Your task to perform on an android device: set an alarm Image 0: 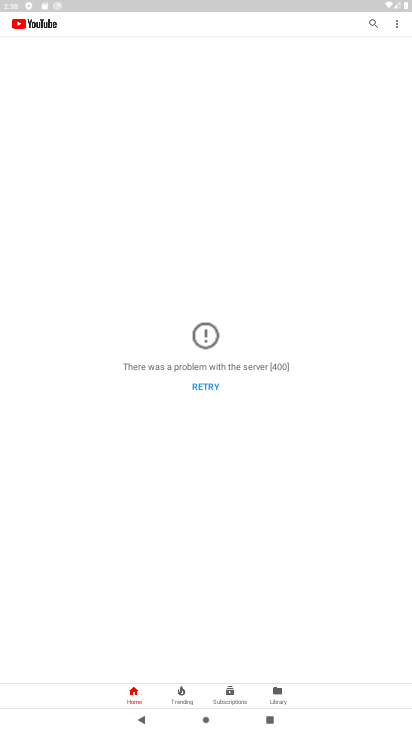
Step 0: press home button
Your task to perform on an android device: set an alarm Image 1: 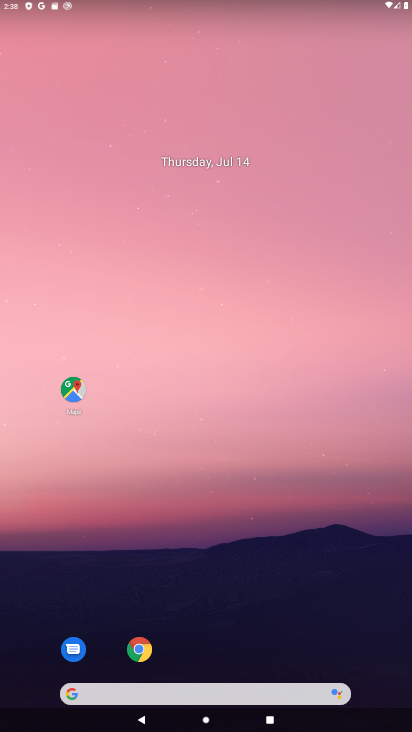
Step 1: drag from (276, 613) to (284, 140)
Your task to perform on an android device: set an alarm Image 2: 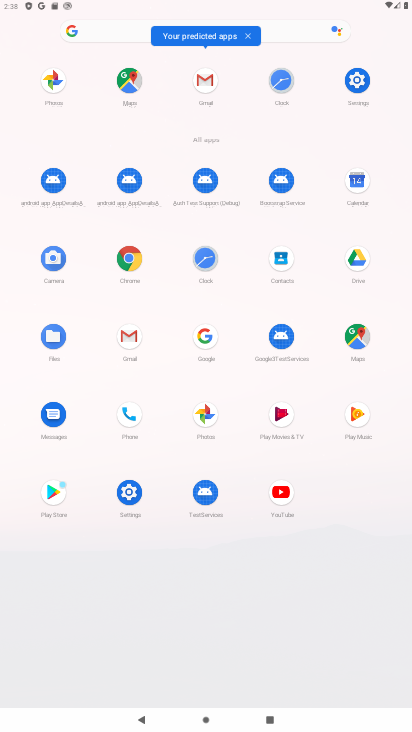
Step 2: click (206, 254)
Your task to perform on an android device: set an alarm Image 3: 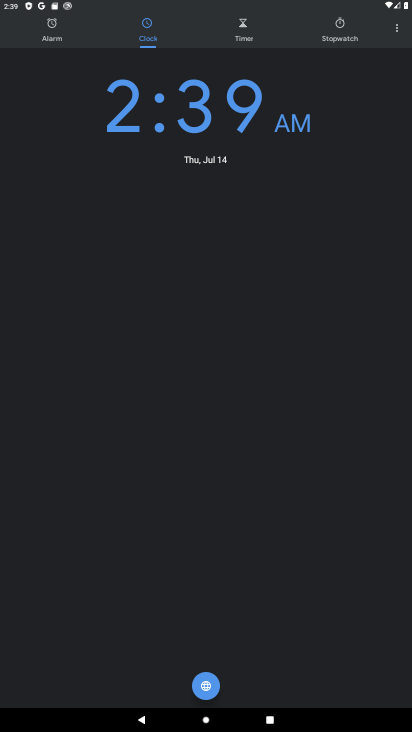
Step 3: click (392, 33)
Your task to perform on an android device: set an alarm Image 4: 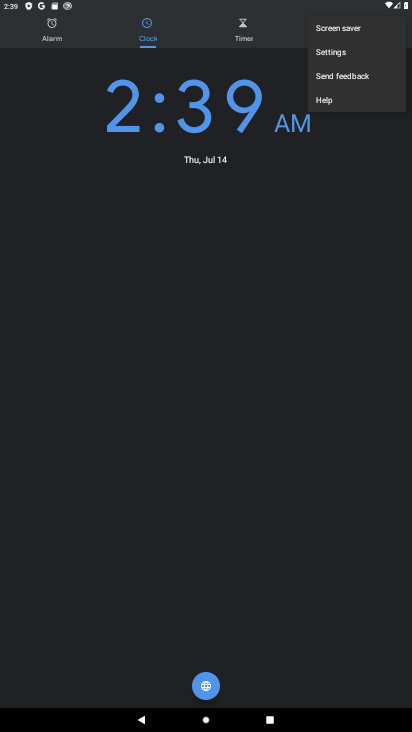
Step 4: click (32, 29)
Your task to perform on an android device: set an alarm Image 5: 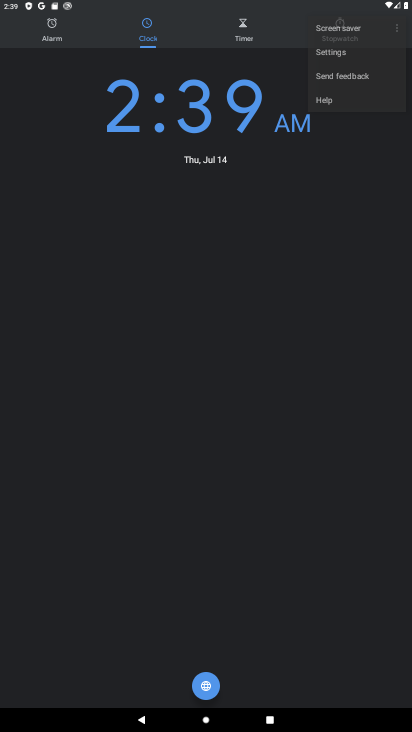
Step 5: click (32, 29)
Your task to perform on an android device: set an alarm Image 6: 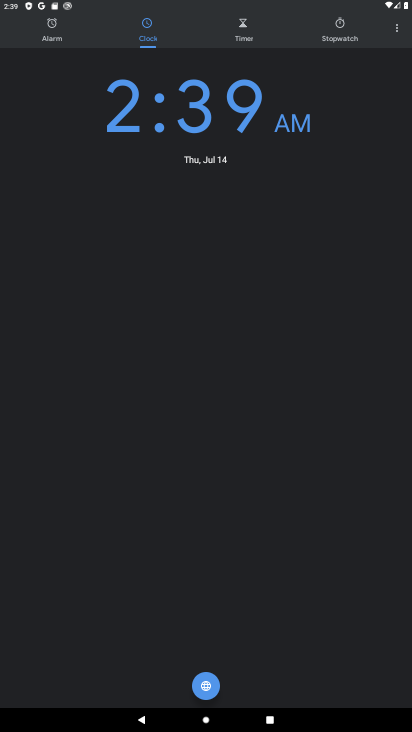
Step 6: click (32, 29)
Your task to perform on an android device: set an alarm Image 7: 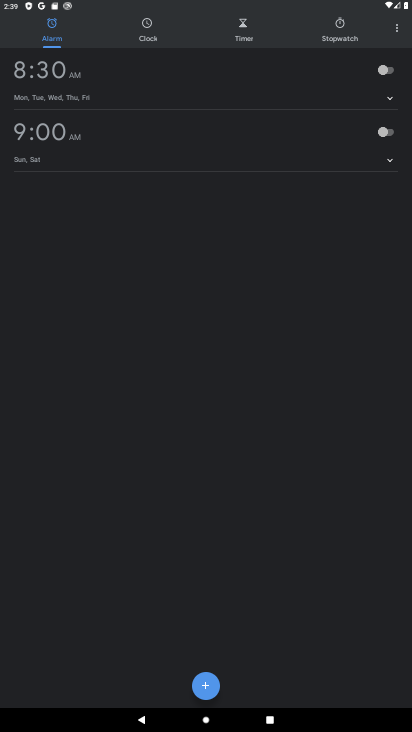
Step 7: click (201, 697)
Your task to perform on an android device: set an alarm Image 8: 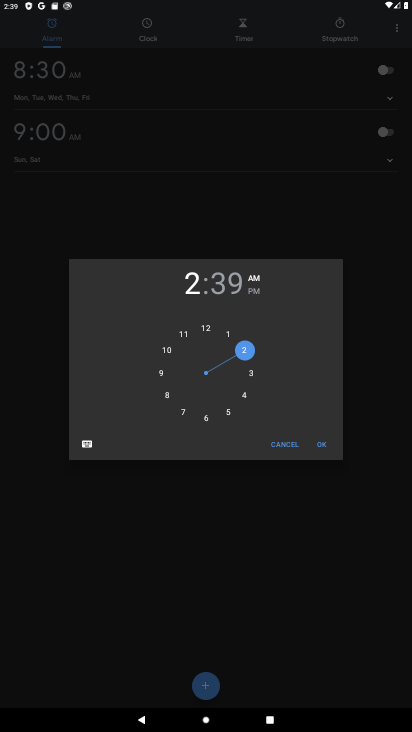
Step 8: click (322, 445)
Your task to perform on an android device: set an alarm Image 9: 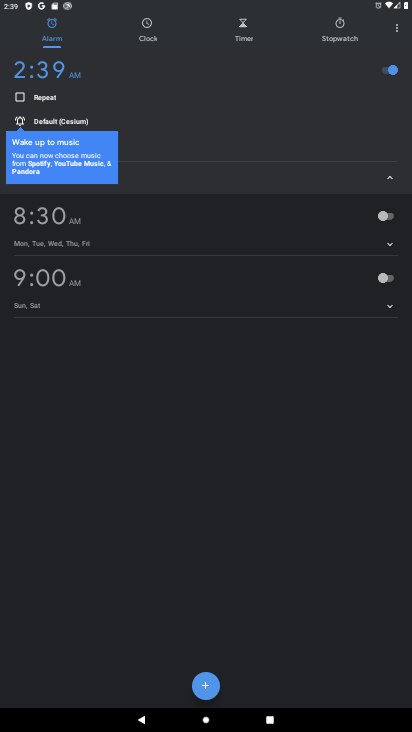
Step 9: task complete